Your task to perform on an android device: Go to Google maps Image 0: 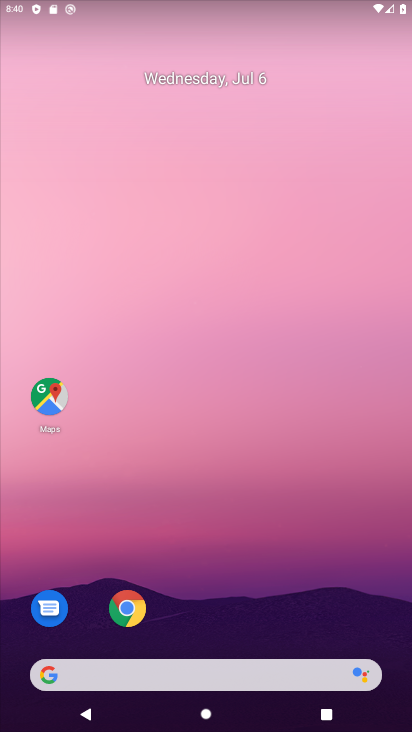
Step 0: click (48, 397)
Your task to perform on an android device: Go to Google maps Image 1: 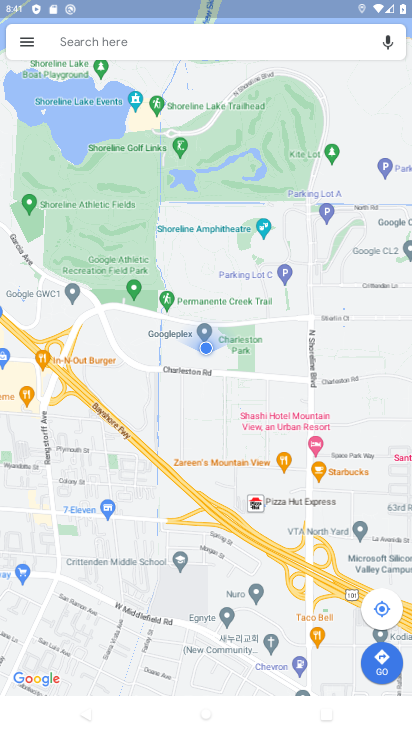
Step 1: task complete